Your task to perform on an android device: toggle airplane mode Image 0: 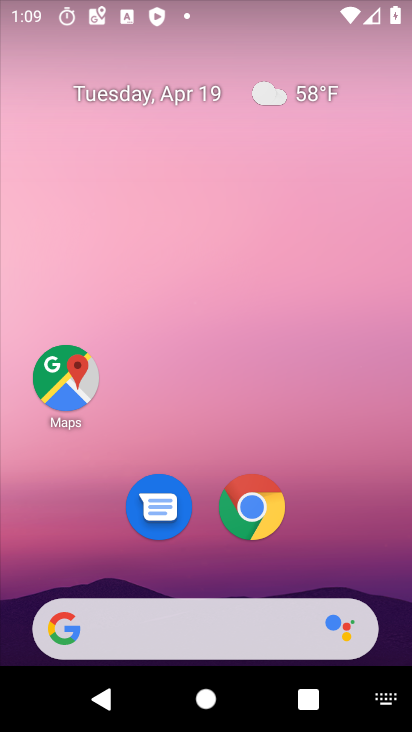
Step 0: drag from (199, 583) to (199, 40)
Your task to perform on an android device: toggle airplane mode Image 1: 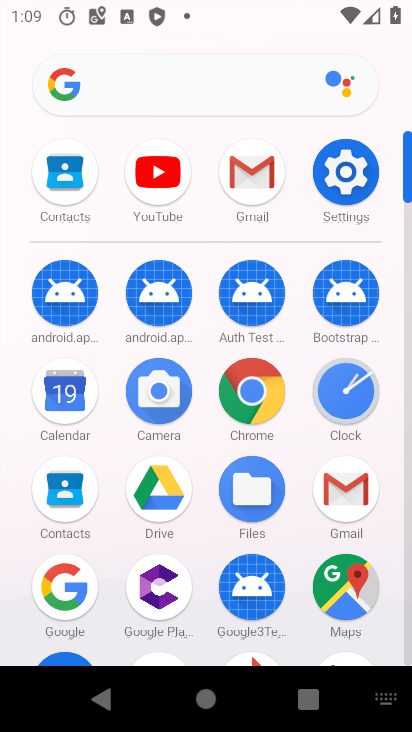
Step 1: click (336, 186)
Your task to perform on an android device: toggle airplane mode Image 2: 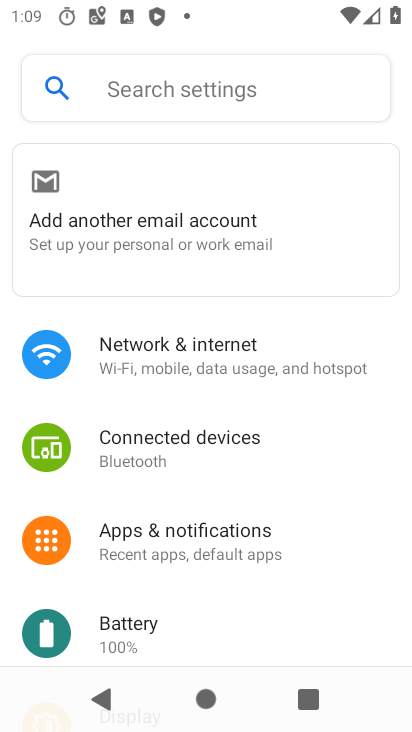
Step 2: click (206, 349)
Your task to perform on an android device: toggle airplane mode Image 3: 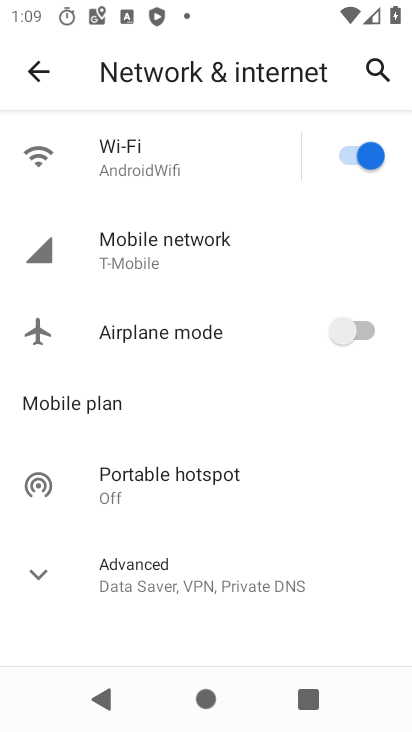
Step 3: click (338, 323)
Your task to perform on an android device: toggle airplane mode Image 4: 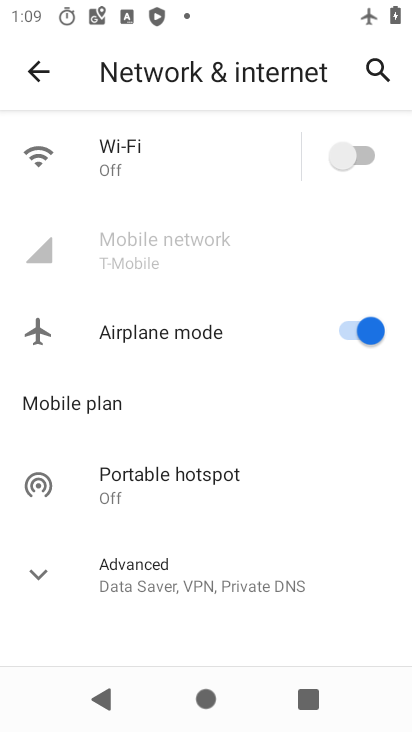
Step 4: task complete